Your task to perform on an android device: turn off airplane mode Image 0: 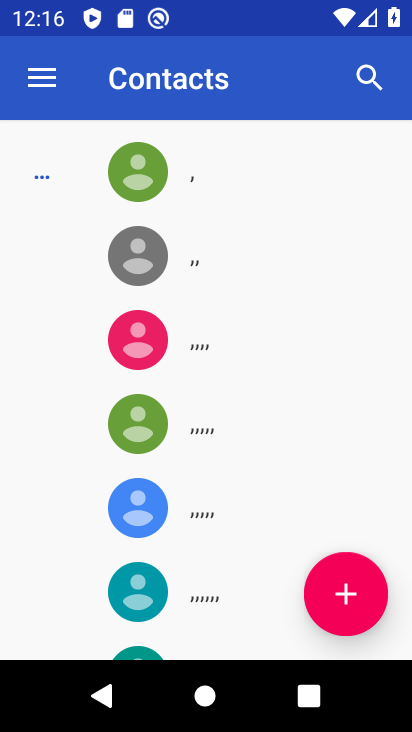
Step 0: press home button
Your task to perform on an android device: turn off airplane mode Image 1: 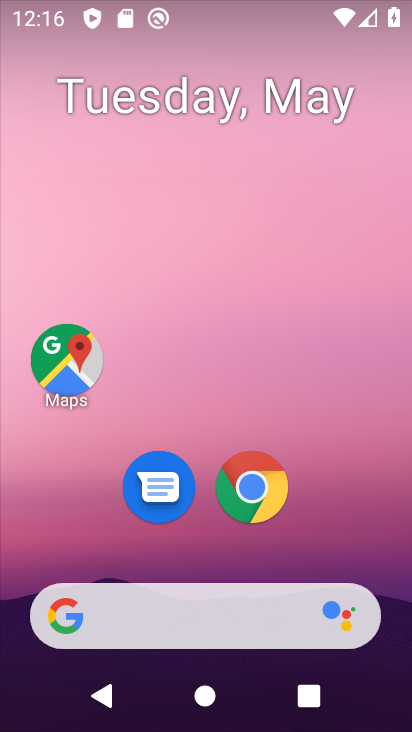
Step 1: drag from (319, 522) to (263, 176)
Your task to perform on an android device: turn off airplane mode Image 2: 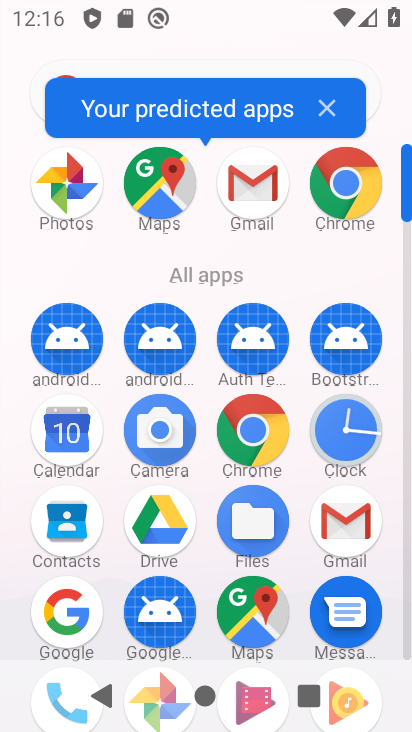
Step 2: drag from (300, 579) to (279, 300)
Your task to perform on an android device: turn off airplane mode Image 3: 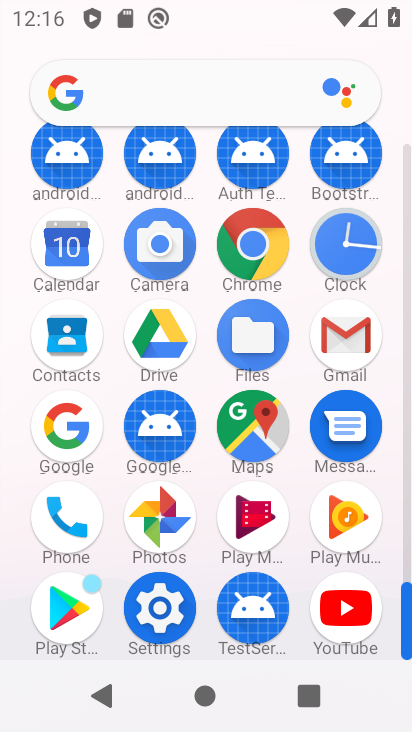
Step 3: click (146, 607)
Your task to perform on an android device: turn off airplane mode Image 4: 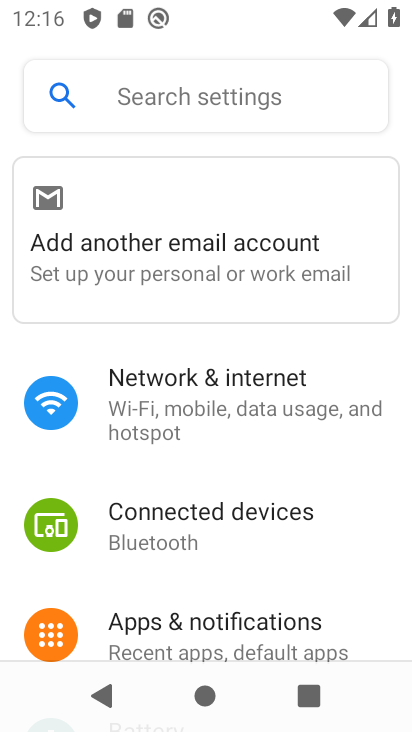
Step 4: drag from (188, 615) to (198, 418)
Your task to perform on an android device: turn off airplane mode Image 5: 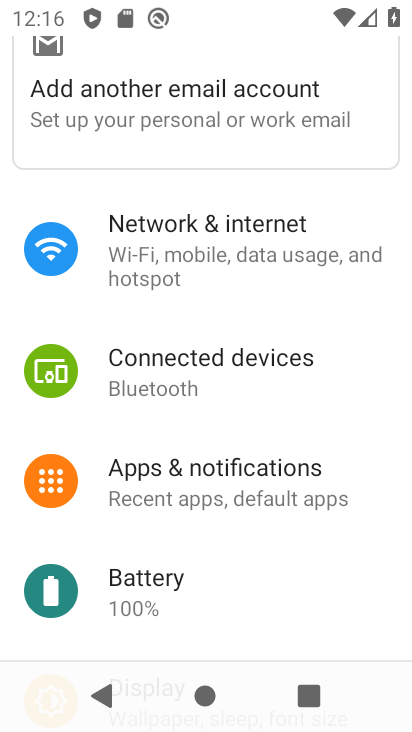
Step 5: click (186, 259)
Your task to perform on an android device: turn off airplane mode Image 6: 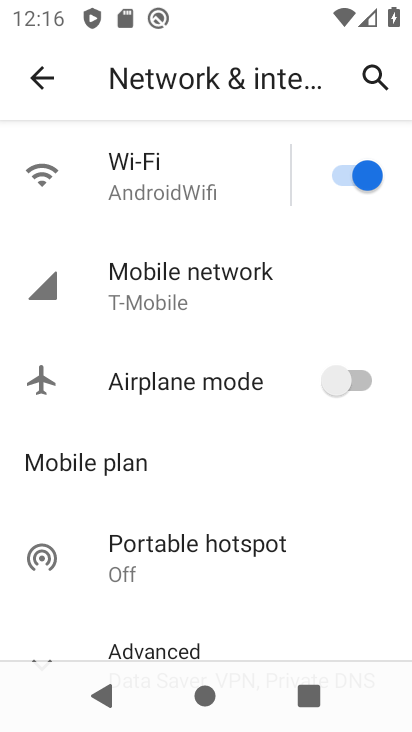
Step 6: task complete